Your task to perform on an android device: turn off improve location accuracy Image 0: 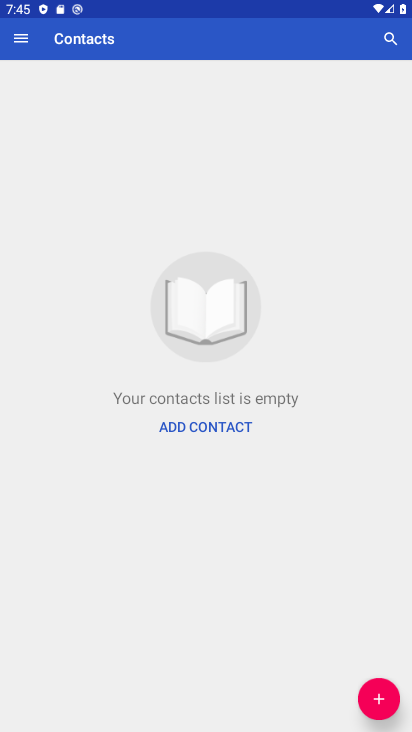
Step 0: press home button
Your task to perform on an android device: turn off improve location accuracy Image 1: 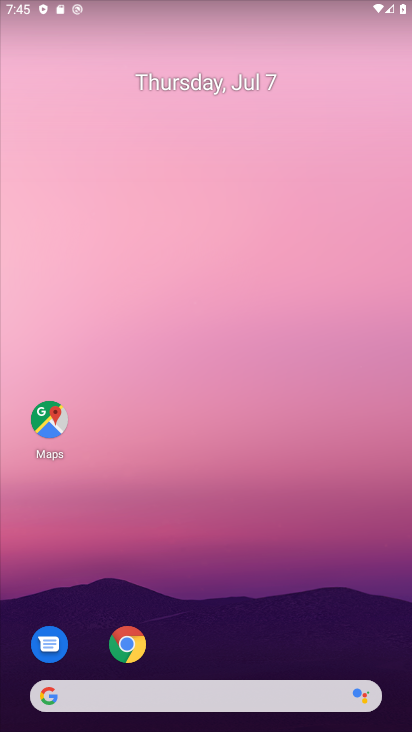
Step 1: drag from (263, 676) to (405, 0)
Your task to perform on an android device: turn off improve location accuracy Image 2: 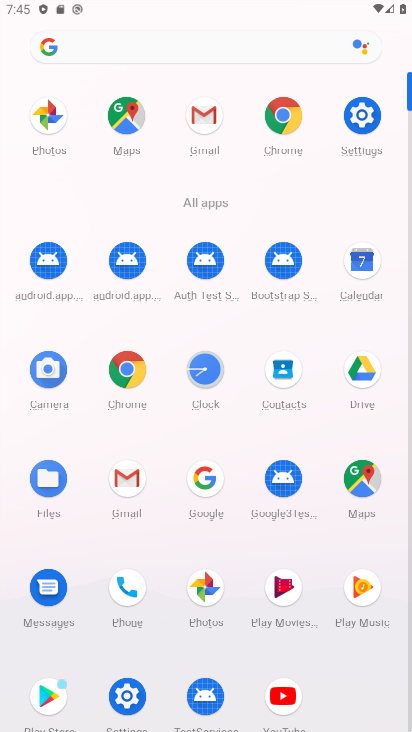
Step 2: click (134, 696)
Your task to perform on an android device: turn off improve location accuracy Image 3: 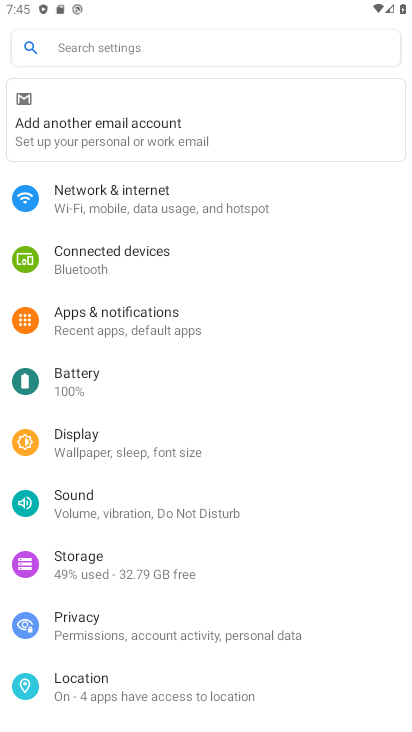
Step 3: drag from (115, 631) to (187, 329)
Your task to perform on an android device: turn off improve location accuracy Image 4: 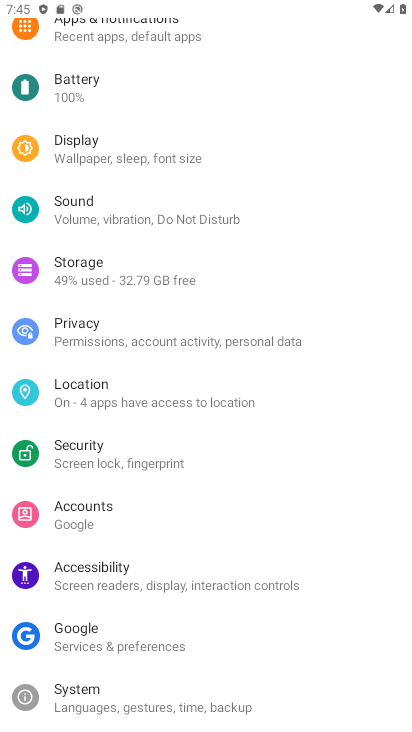
Step 4: click (104, 410)
Your task to perform on an android device: turn off improve location accuracy Image 5: 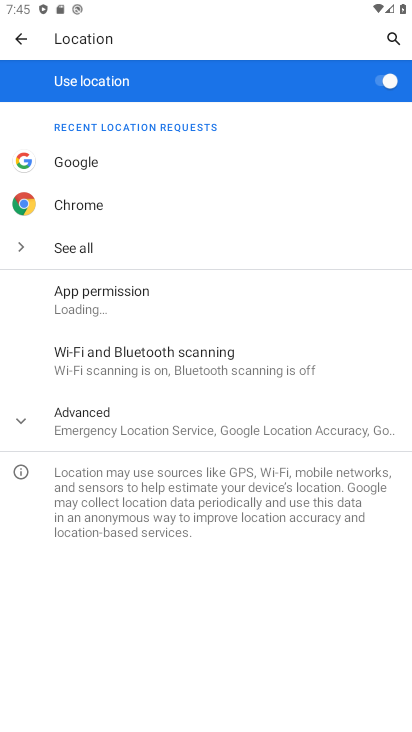
Step 5: click (118, 438)
Your task to perform on an android device: turn off improve location accuracy Image 6: 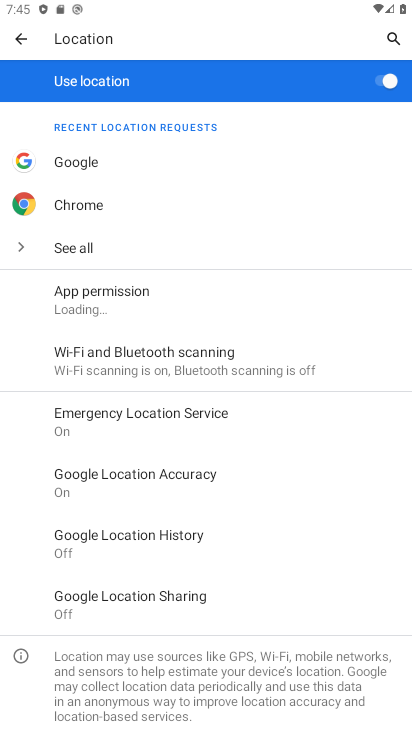
Step 6: click (168, 482)
Your task to perform on an android device: turn off improve location accuracy Image 7: 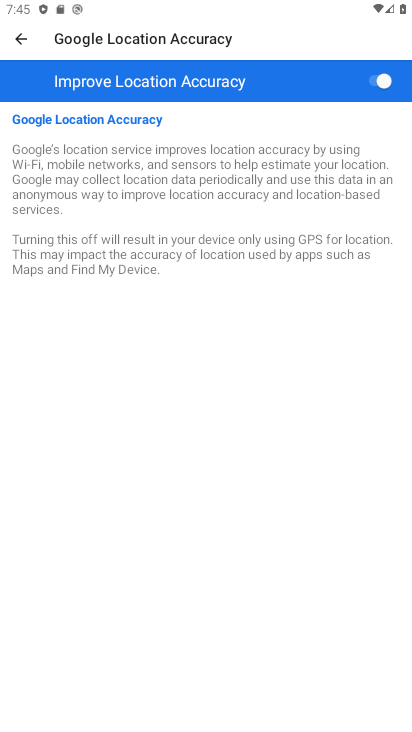
Step 7: click (391, 75)
Your task to perform on an android device: turn off improve location accuracy Image 8: 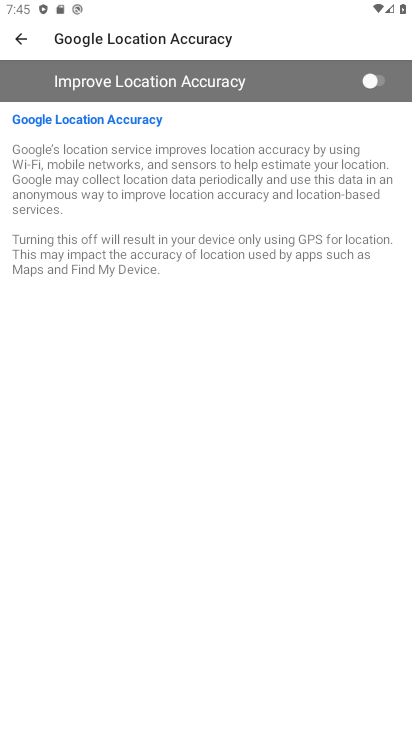
Step 8: task complete